Your task to perform on an android device: toggle notification dots Image 0: 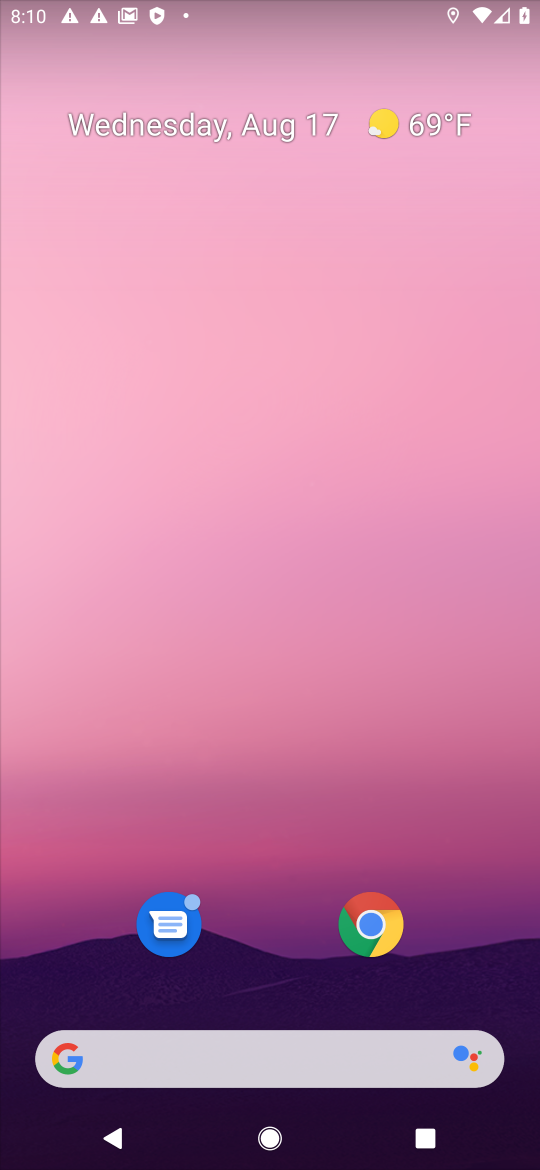
Step 0: drag from (252, 965) to (222, 10)
Your task to perform on an android device: toggle notification dots Image 1: 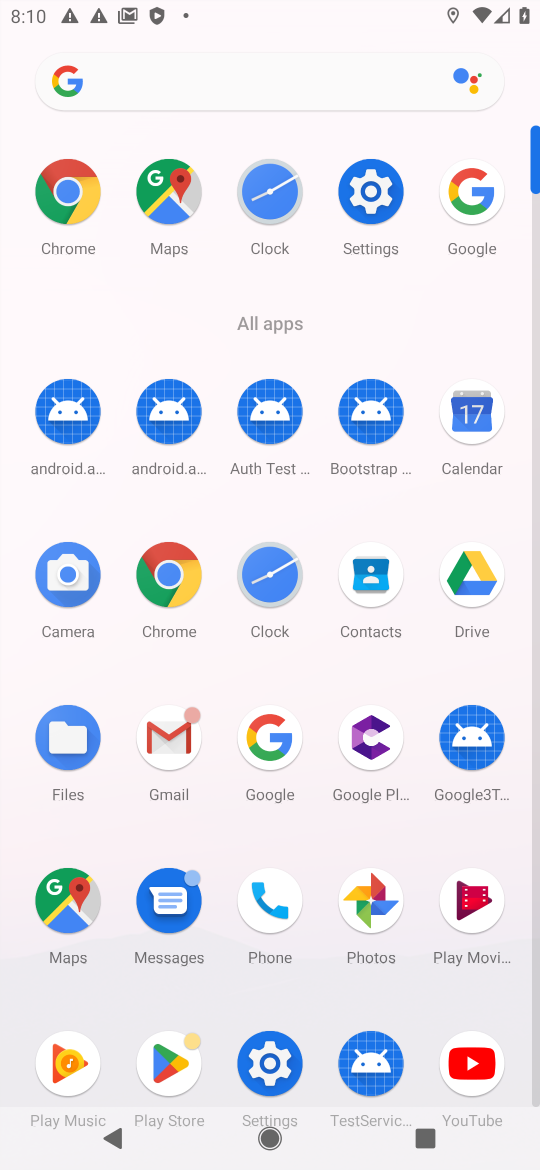
Step 1: click (389, 187)
Your task to perform on an android device: toggle notification dots Image 2: 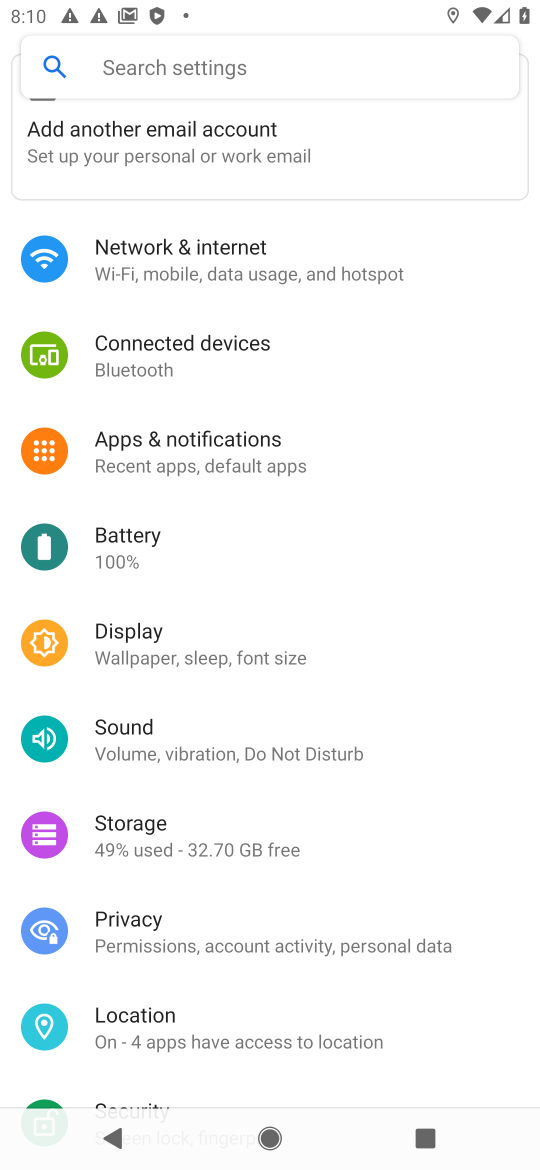
Step 2: drag from (275, 1000) to (274, 578)
Your task to perform on an android device: toggle notification dots Image 3: 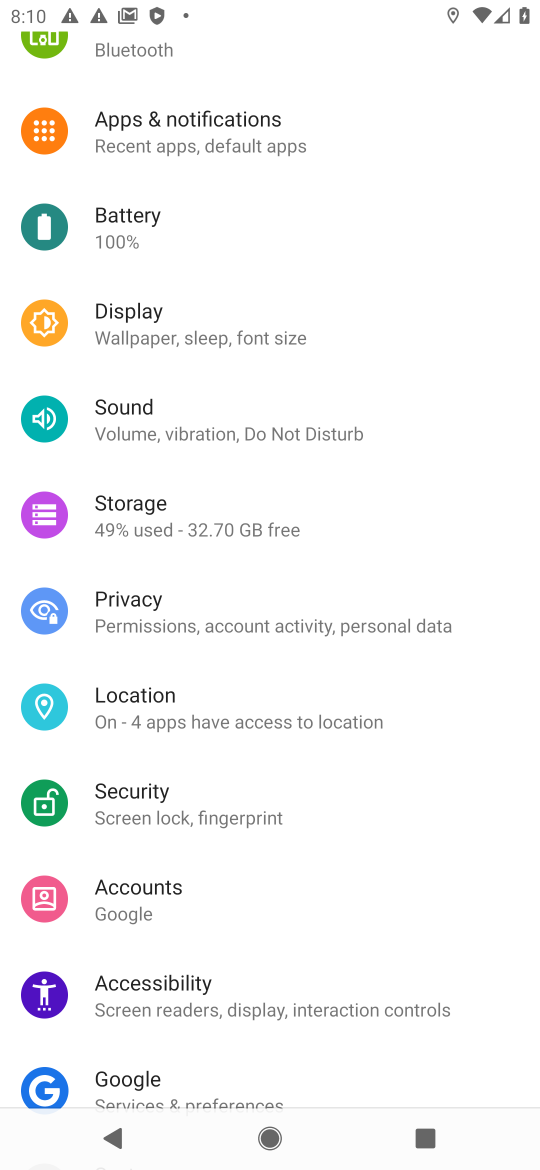
Step 3: click (216, 121)
Your task to perform on an android device: toggle notification dots Image 4: 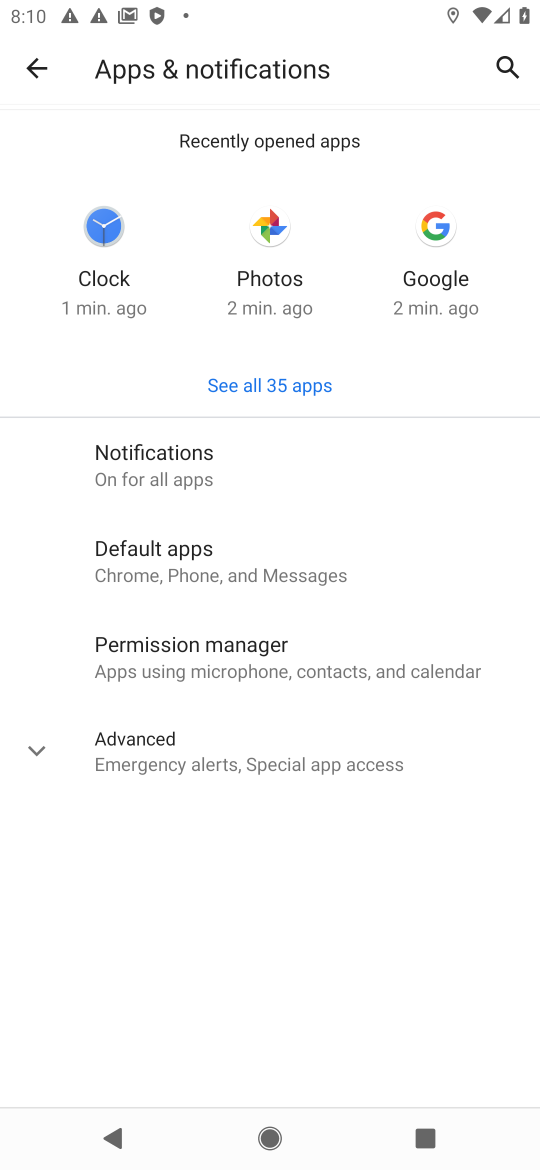
Step 4: click (205, 756)
Your task to perform on an android device: toggle notification dots Image 5: 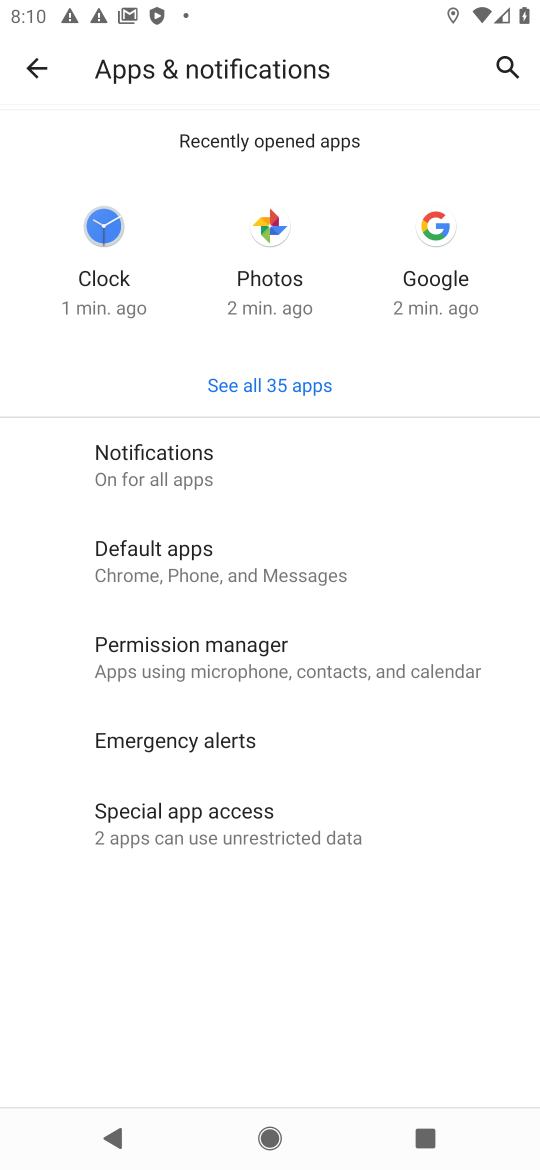
Step 5: click (202, 449)
Your task to perform on an android device: toggle notification dots Image 6: 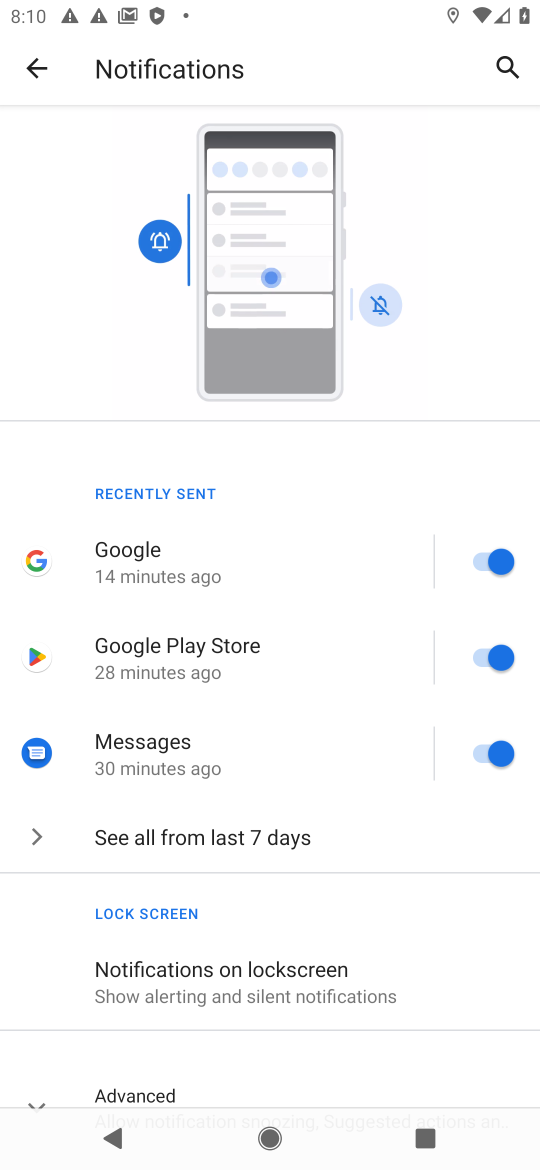
Step 6: drag from (295, 976) to (332, 185)
Your task to perform on an android device: toggle notification dots Image 7: 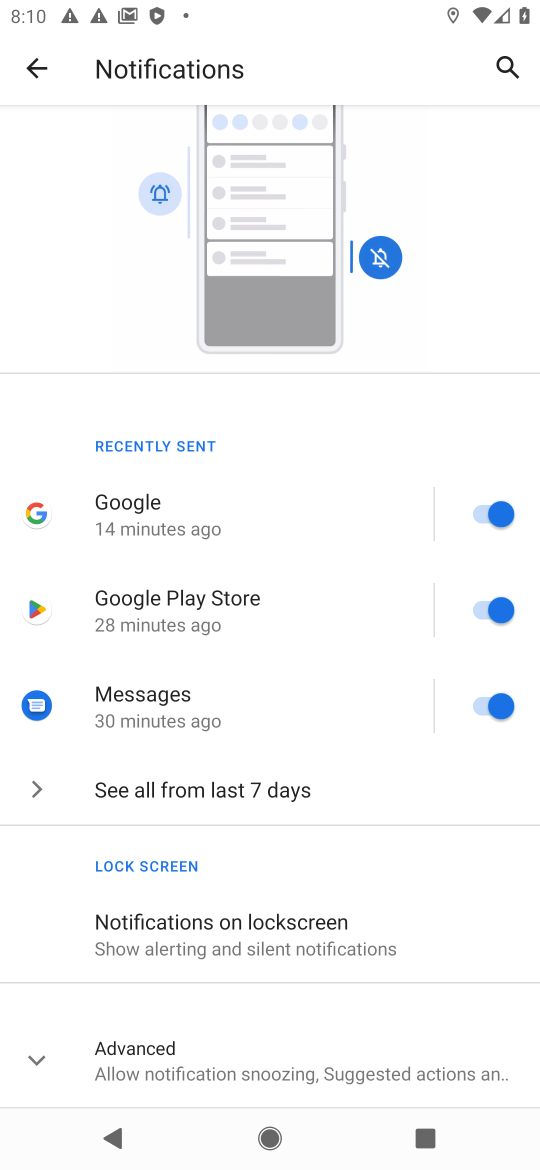
Step 7: click (154, 1058)
Your task to perform on an android device: toggle notification dots Image 8: 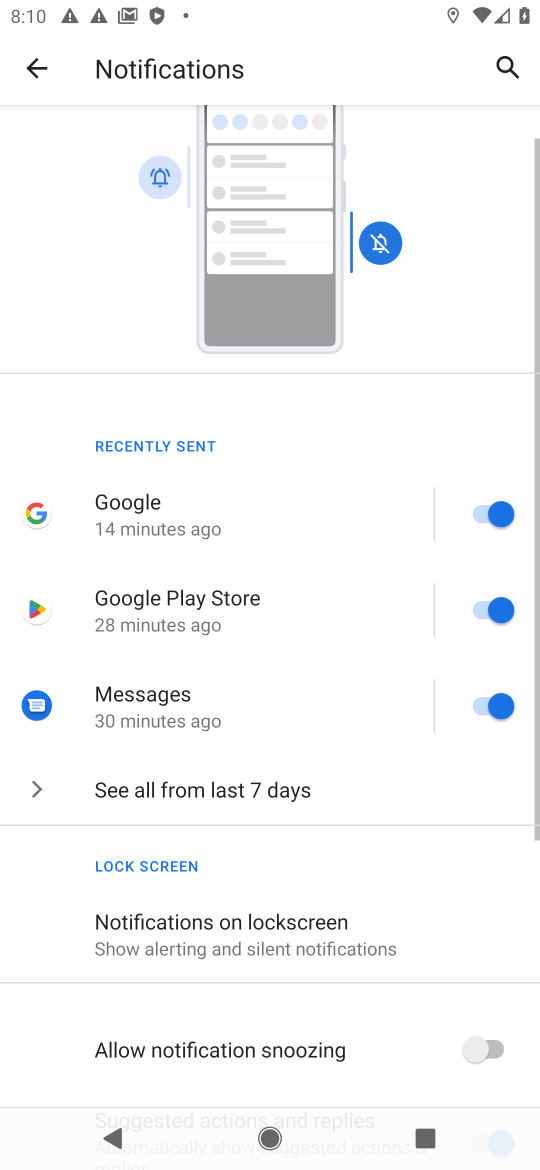
Step 8: drag from (385, 1011) to (450, 392)
Your task to perform on an android device: toggle notification dots Image 9: 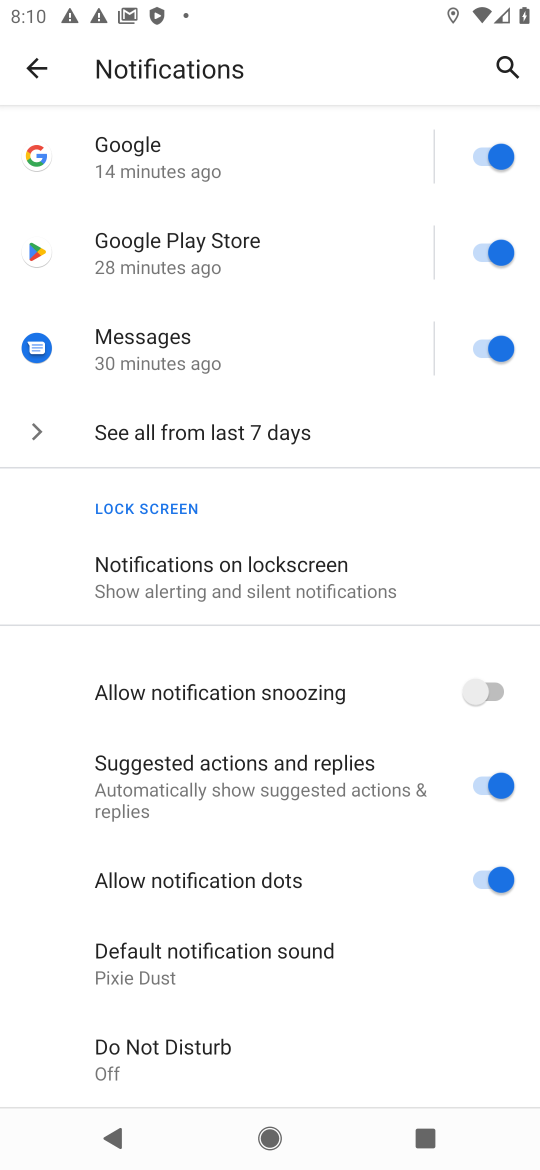
Step 9: click (439, 874)
Your task to perform on an android device: toggle notification dots Image 10: 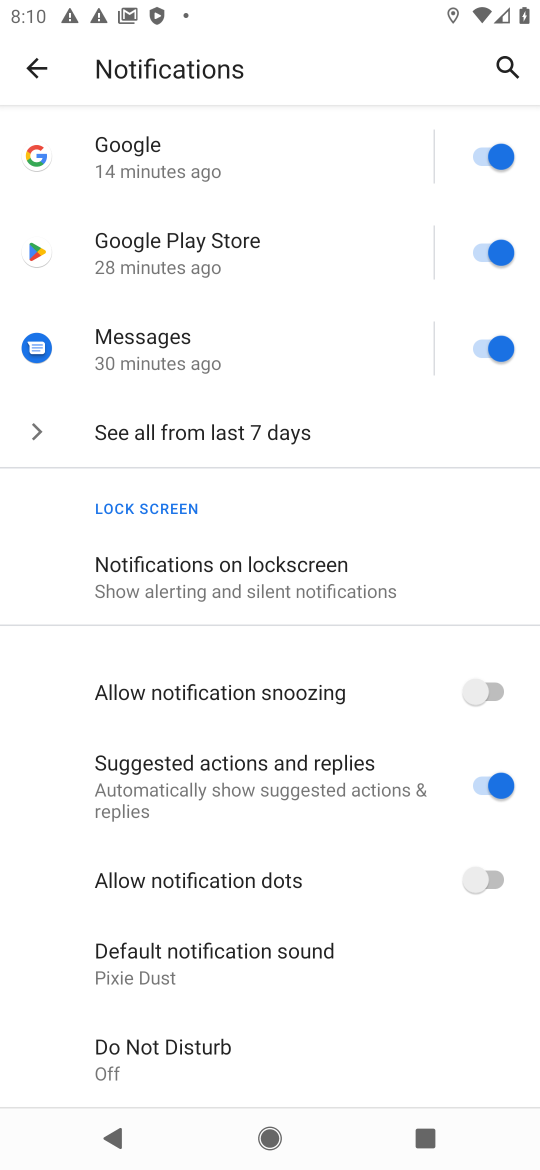
Step 10: task complete